Your task to perform on an android device: Open Chrome and go to the settings page Image 0: 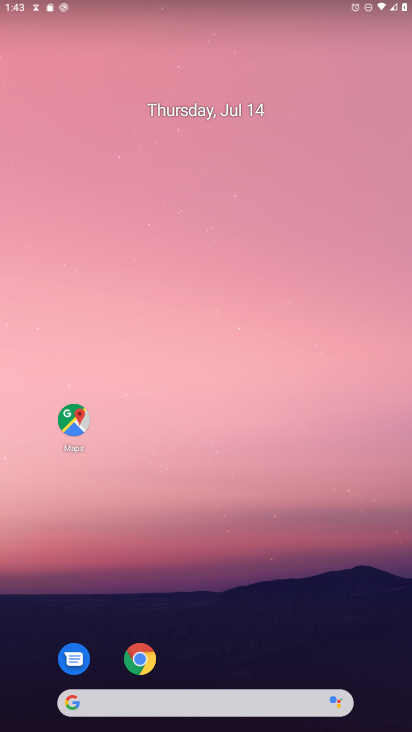
Step 0: click (131, 665)
Your task to perform on an android device: Open Chrome and go to the settings page Image 1: 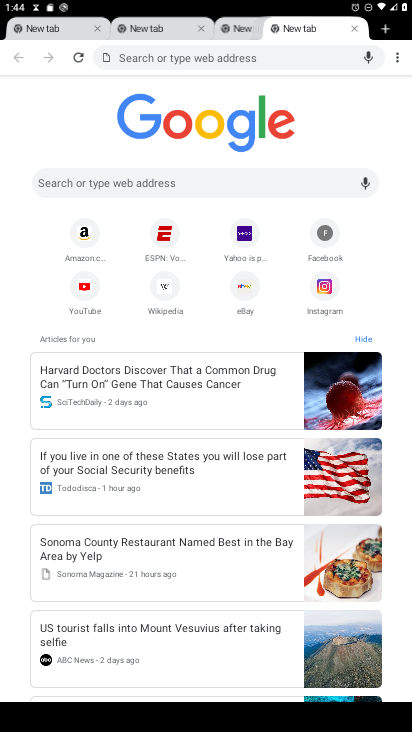
Step 1: click (399, 52)
Your task to perform on an android device: Open Chrome and go to the settings page Image 2: 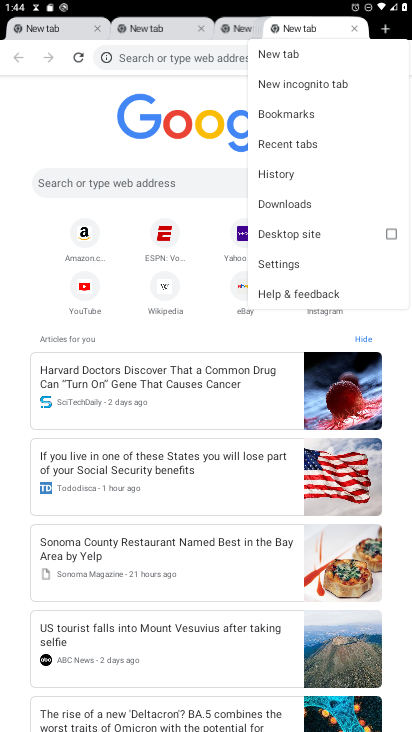
Step 2: click (269, 260)
Your task to perform on an android device: Open Chrome and go to the settings page Image 3: 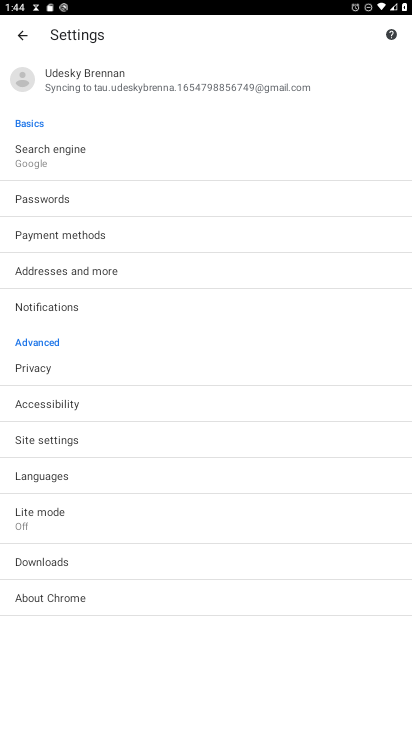
Step 3: task complete